Your task to perform on an android device: Search for sushi restaurants on Maps Image 0: 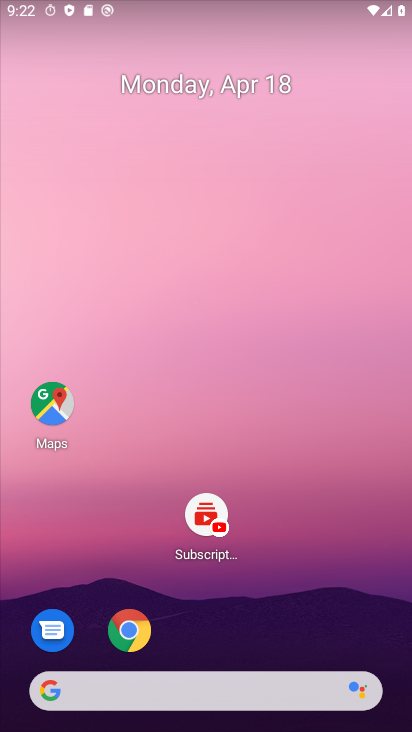
Step 0: click (41, 405)
Your task to perform on an android device: Search for sushi restaurants on Maps Image 1: 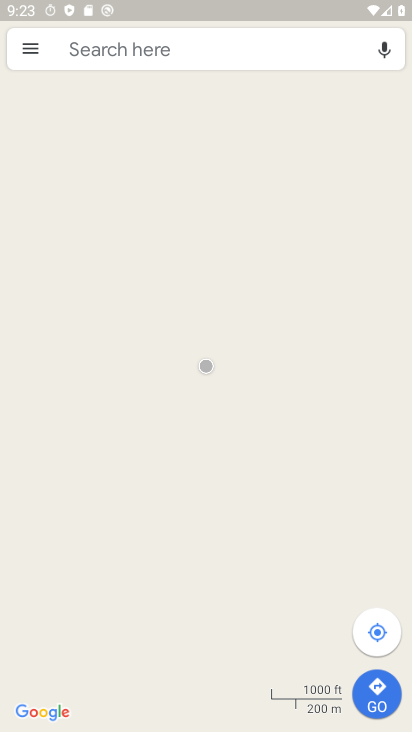
Step 1: click (148, 61)
Your task to perform on an android device: Search for sushi restaurants on Maps Image 2: 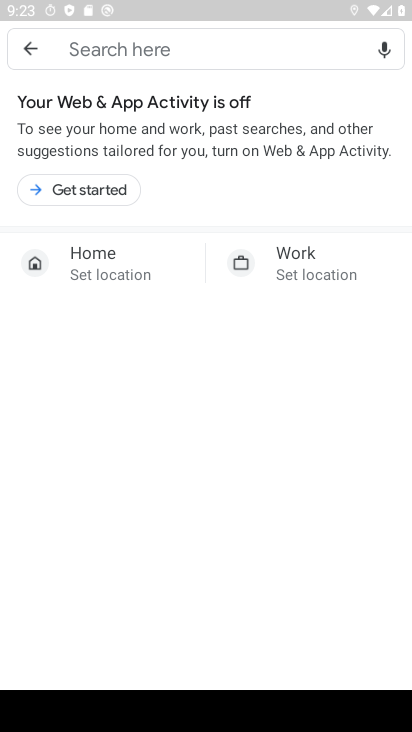
Step 2: type "sushi restaurants"
Your task to perform on an android device: Search for sushi restaurants on Maps Image 3: 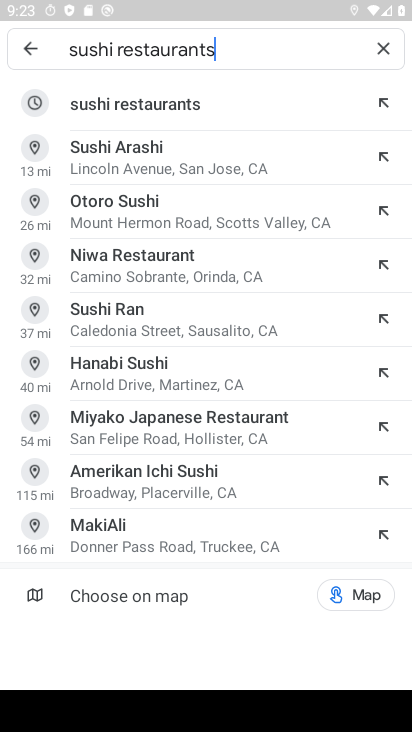
Step 3: click (193, 109)
Your task to perform on an android device: Search for sushi restaurants on Maps Image 4: 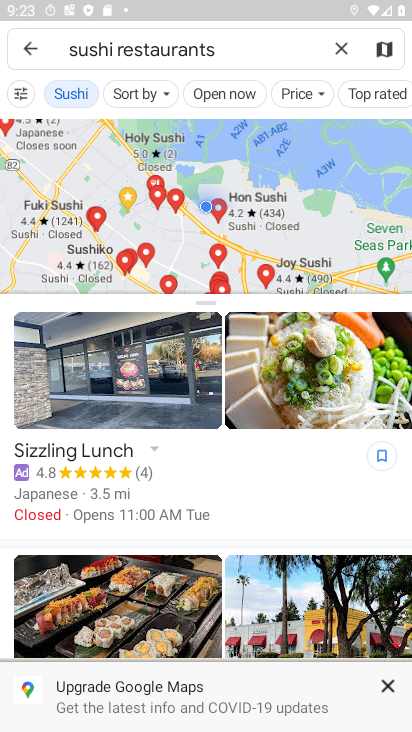
Step 4: task complete